Your task to perform on an android device: delete a single message in the gmail app Image 0: 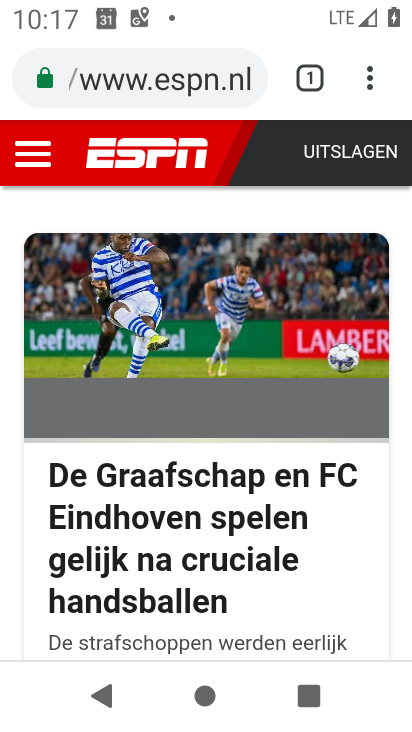
Step 0: press back button
Your task to perform on an android device: delete a single message in the gmail app Image 1: 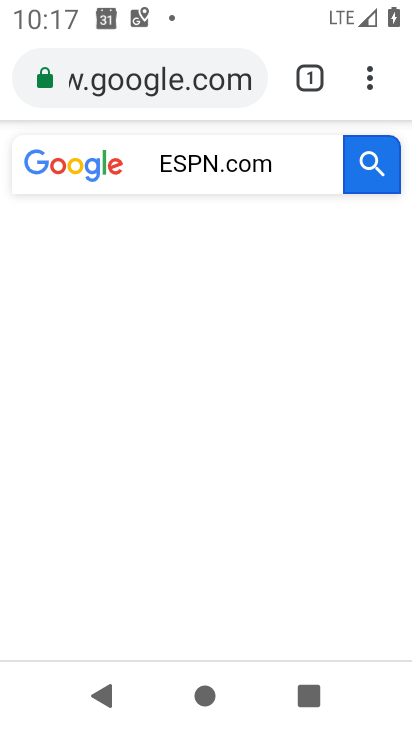
Step 1: press home button
Your task to perform on an android device: delete a single message in the gmail app Image 2: 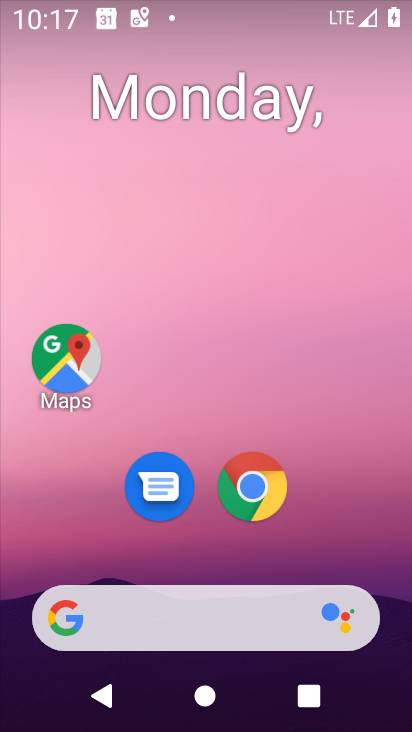
Step 2: drag from (340, 453) to (283, 33)
Your task to perform on an android device: delete a single message in the gmail app Image 3: 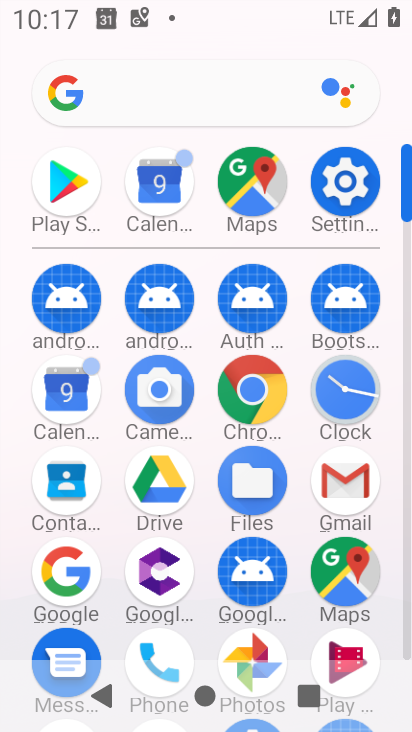
Step 3: click (344, 472)
Your task to perform on an android device: delete a single message in the gmail app Image 4: 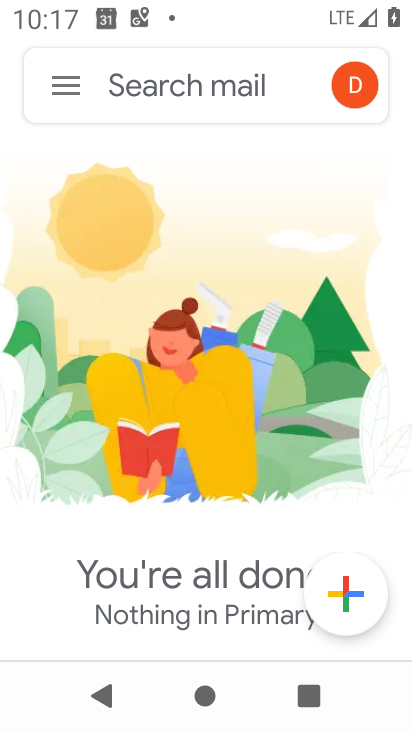
Step 4: click (62, 95)
Your task to perform on an android device: delete a single message in the gmail app Image 5: 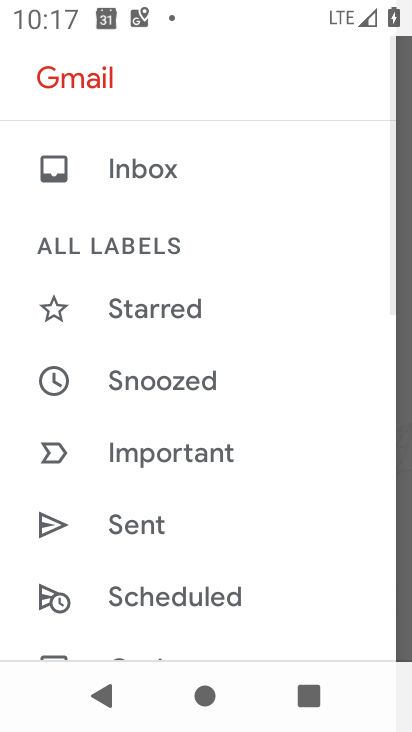
Step 5: drag from (260, 555) to (280, 116)
Your task to perform on an android device: delete a single message in the gmail app Image 6: 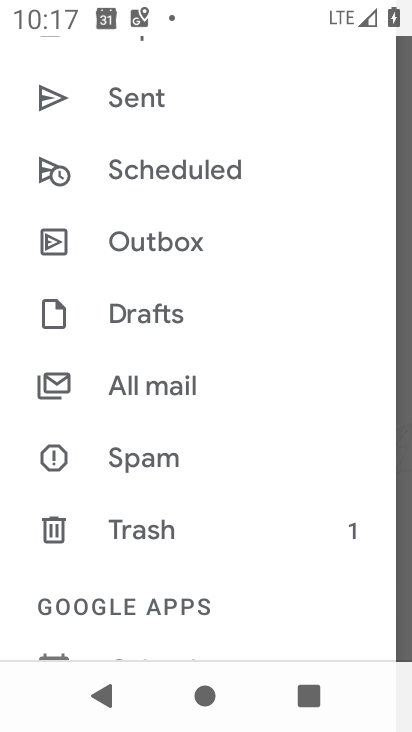
Step 6: drag from (297, 614) to (285, 123)
Your task to perform on an android device: delete a single message in the gmail app Image 7: 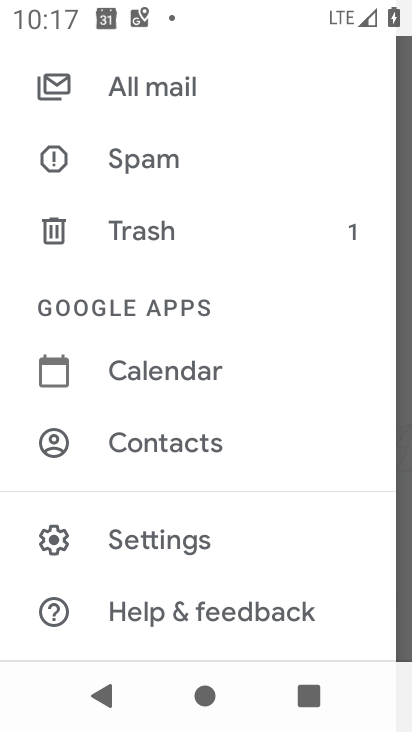
Step 7: click (200, 228)
Your task to perform on an android device: delete a single message in the gmail app Image 8: 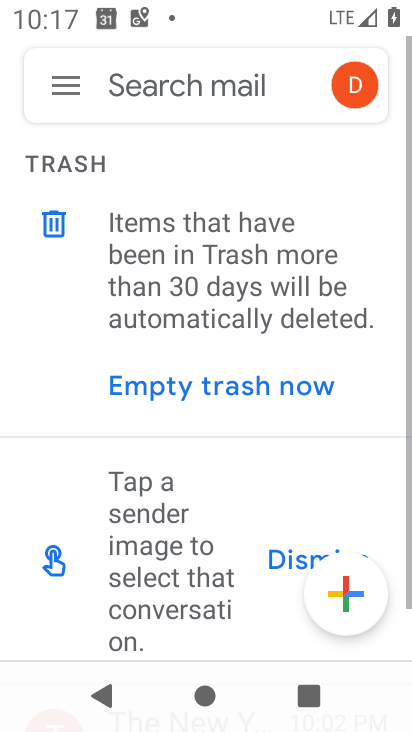
Step 8: drag from (204, 545) to (248, 158)
Your task to perform on an android device: delete a single message in the gmail app Image 9: 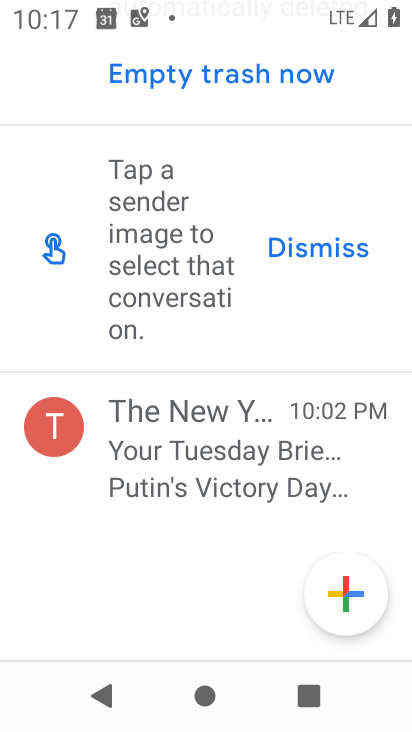
Step 9: click (160, 442)
Your task to perform on an android device: delete a single message in the gmail app Image 10: 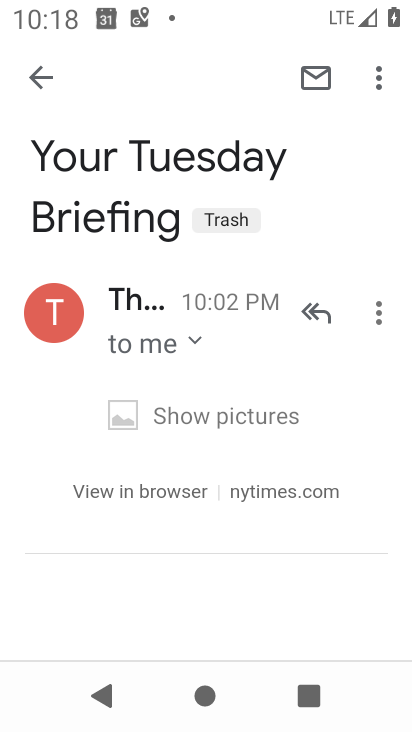
Step 10: click (362, 74)
Your task to perform on an android device: delete a single message in the gmail app Image 11: 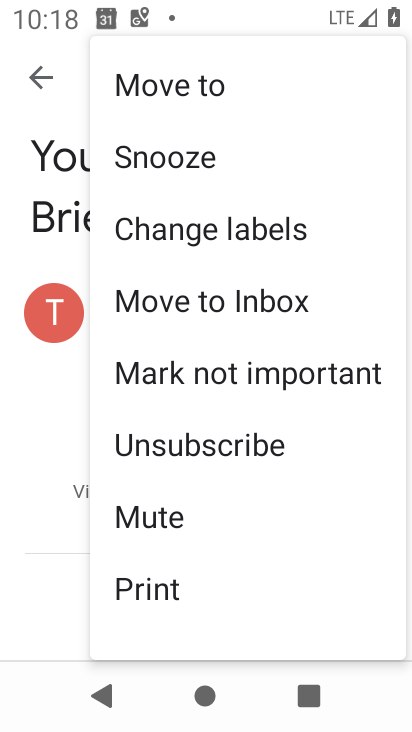
Step 11: click (38, 442)
Your task to perform on an android device: delete a single message in the gmail app Image 12: 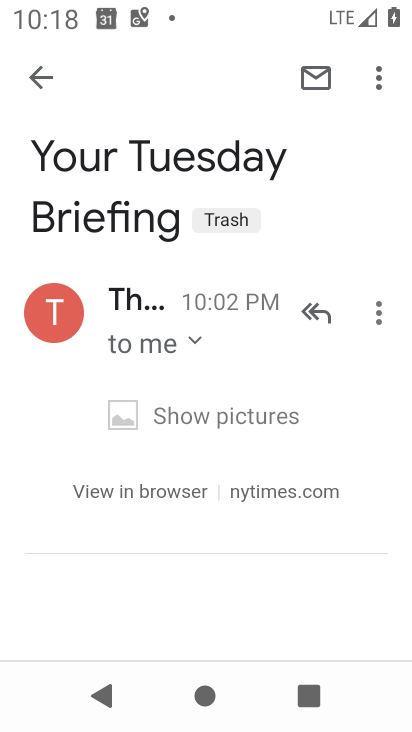
Step 12: click (382, 315)
Your task to perform on an android device: delete a single message in the gmail app Image 13: 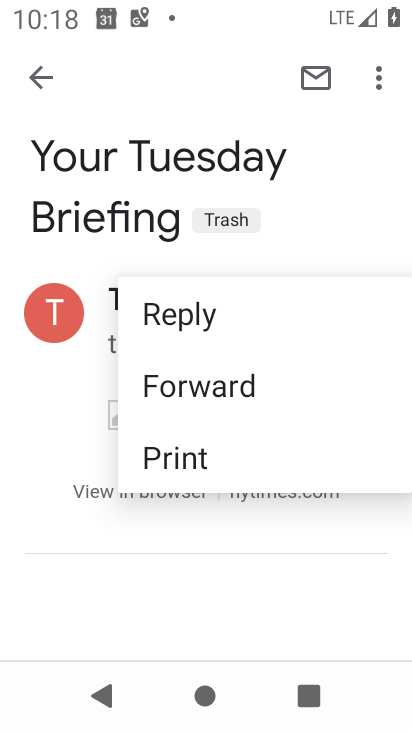
Step 13: click (16, 367)
Your task to perform on an android device: delete a single message in the gmail app Image 14: 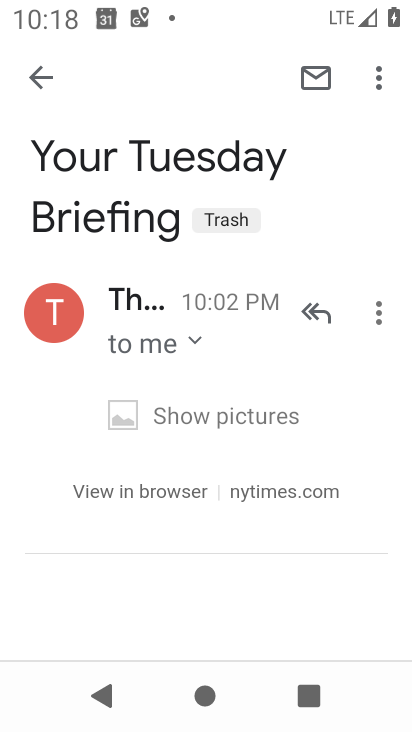
Step 14: drag from (150, 497) to (200, 168)
Your task to perform on an android device: delete a single message in the gmail app Image 15: 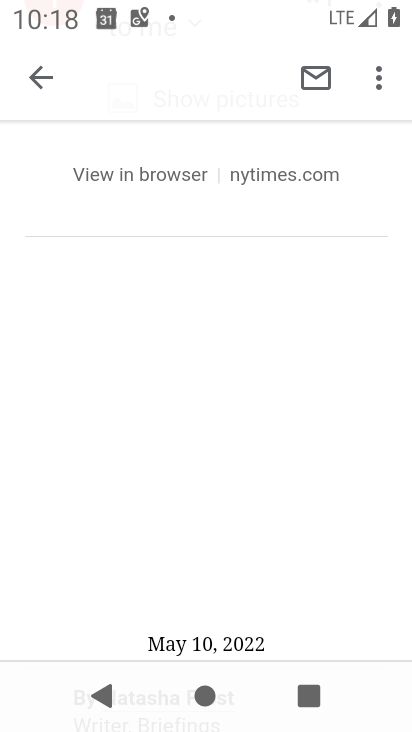
Step 15: drag from (198, 303) to (211, 565)
Your task to perform on an android device: delete a single message in the gmail app Image 16: 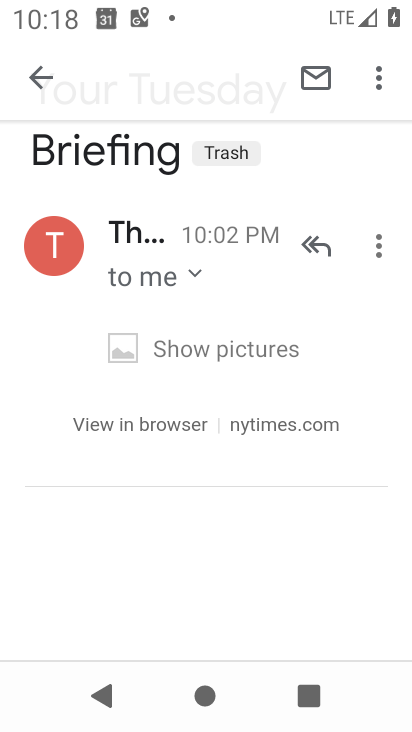
Step 16: click (314, 79)
Your task to perform on an android device: delete a single message in the gmail app Image 17: 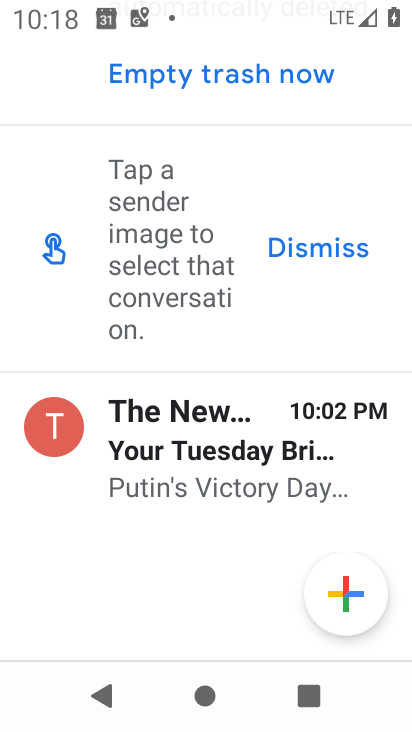
Step 17: click (222, 431)
Your task to perform on an android device: delete a single message in the gmail app Image 18: 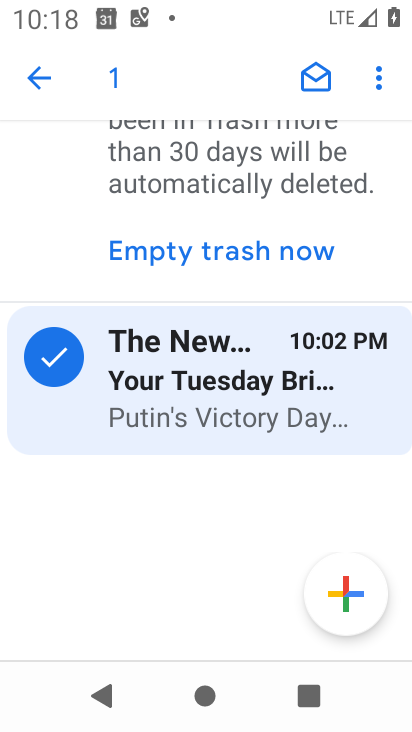
Step 18: click (377, 84)
Your task to perform on an android device: delete a single message in the gmail app Image 19: 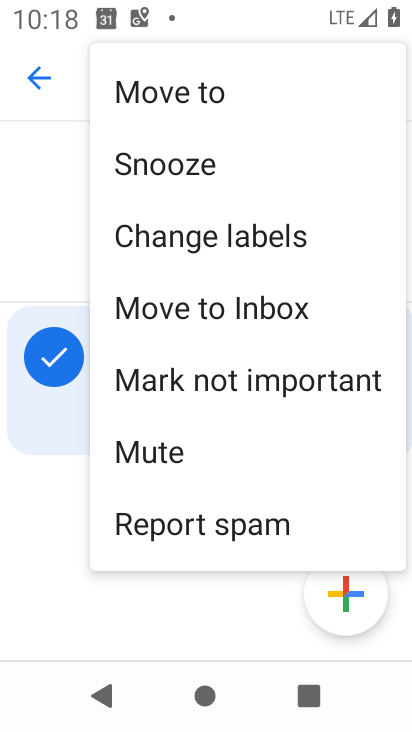
Step 19: click (32, 528)
Your task to perform on an android device: delete a single message in the gmail app Image 20: 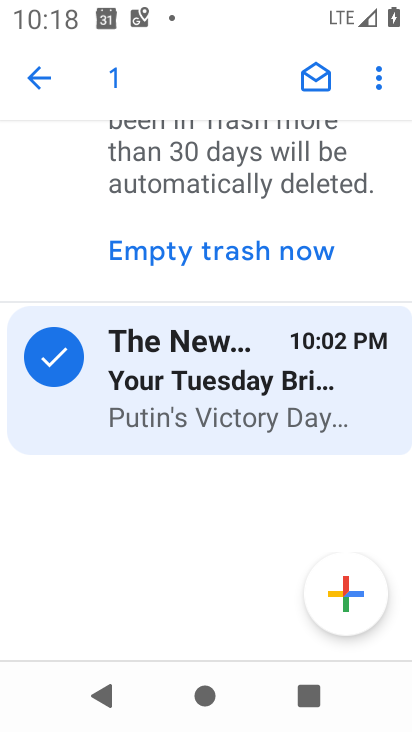
Step 20: click (39, 511)
Your task to perform on an android device: delete a single message in the gmail app Image 21: 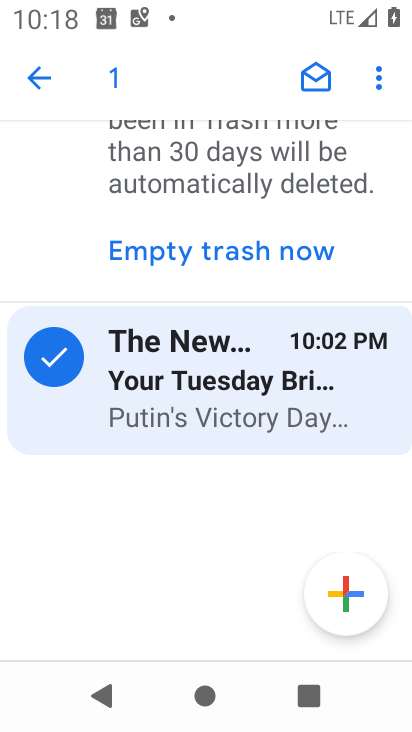
Step 21: click (320, 76)
Your task to perform on an android device: delete a single message in the gmail app Image 22: 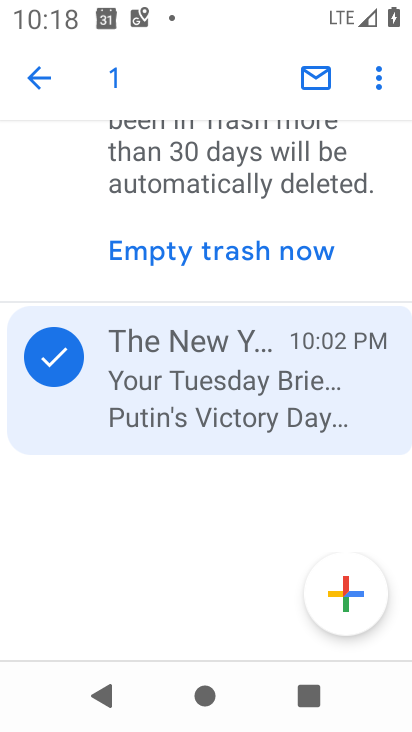
Step 22: click (46, 91)
Your task to perform on an android device: delete a single message in the gmail app Image 23: 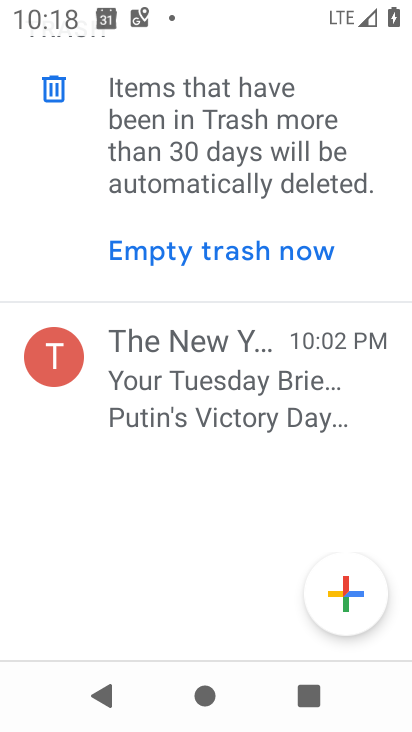
Step 23: click (59, 81)
Your task to perform on an android device: delete a single message in the gmail app Image 24: 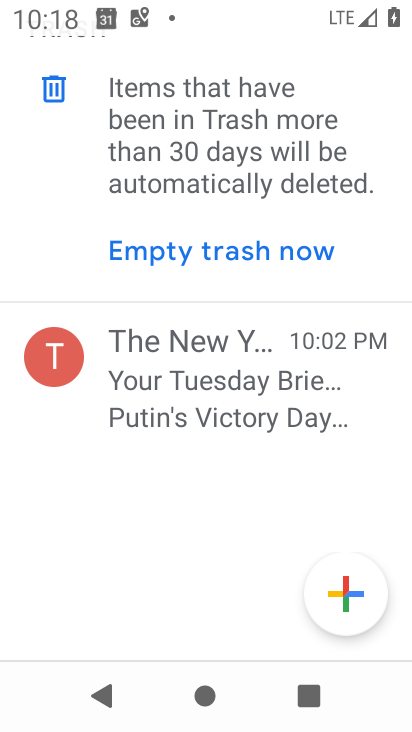
Step 24: click (205, 379)
Your task to perform on an android device: delete a single message in the gmail app Image 25: 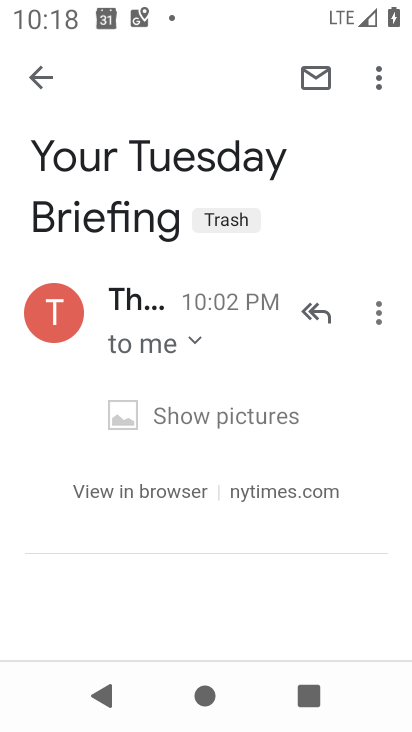
Step 25: click (214, 220)
Your task to perform on an android device: delete a single message in the gmail app Image 26: 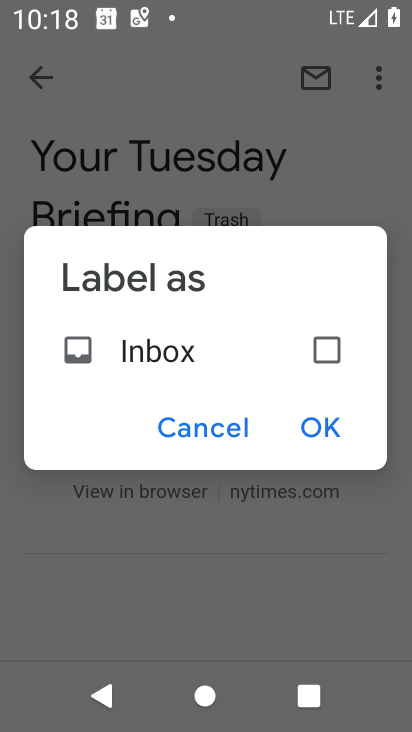
Step 26: click (328, 346)
Your task to perform on an android device: delete a single message in the gmail app Image 27: 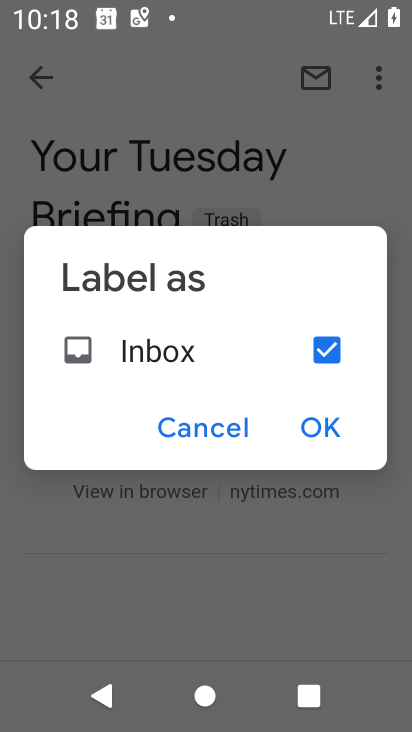
Step 27: click (332, 423)
Your task to perform on an android device: delete a single message in the gmail app Image 28: 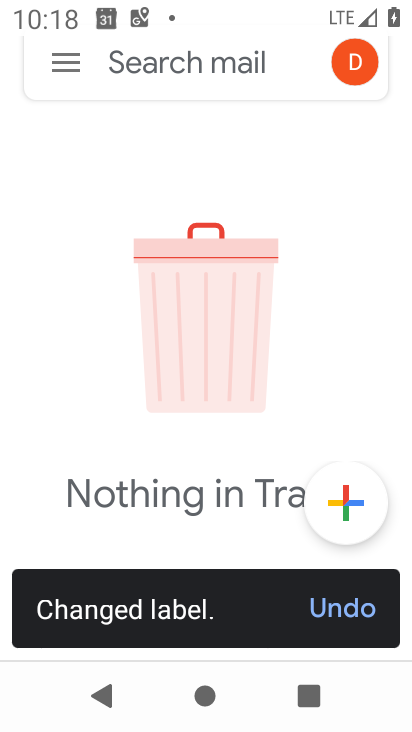
Step 28: click (54, 65)
Your task to perform on an android device: delete a single message in the gmail app Image 29: 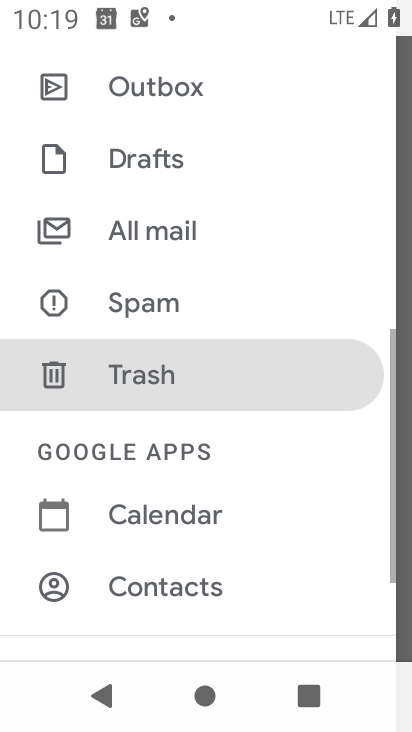
Step 29: drag from (242, 137) to (270, 564)
Your task to perform on an android device: delete a single message in the gmail app Image 30: 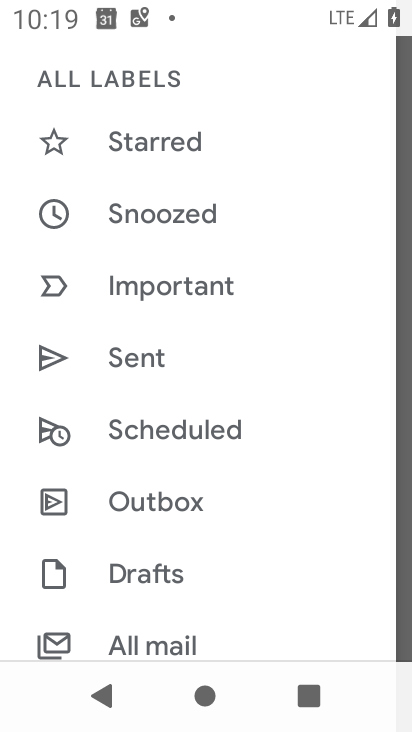
Step 30: drag from (213, 131) to (253, 546)
Your task to perform on an android device: delete a single message in the gmail app Image 31: 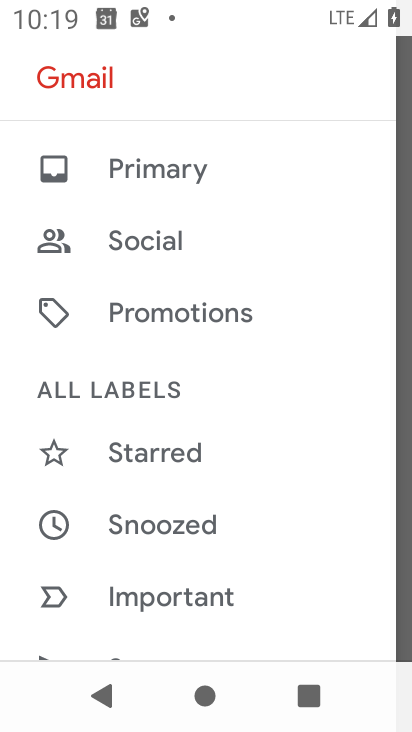
Step 31: click (218, 154)
Your task to perform on an android device: delete a single message in the gmail app Image 32: 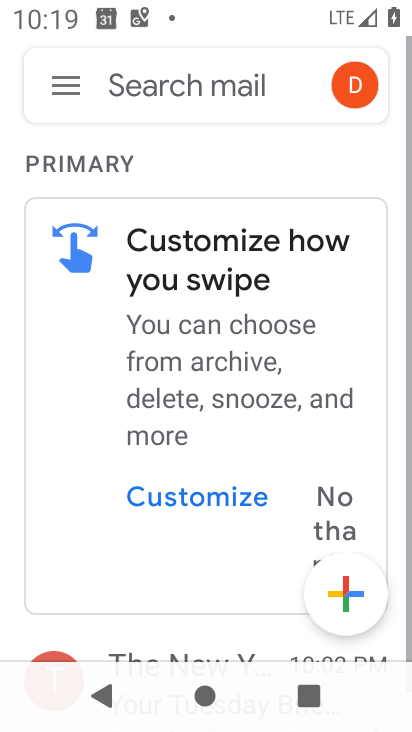
Step 32: drag from (205, 559) to (214, 141)
Your task to perform on an android device: delete a single message in the gmail app Image 33: 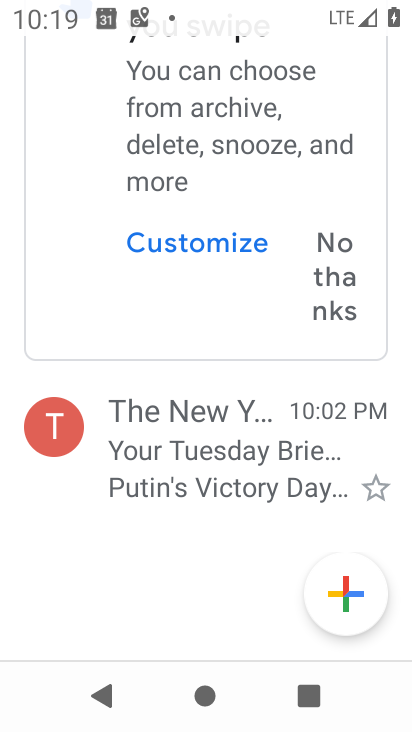
Step 33: click (231, 451)
Your task to perform on an android device: delete a single message in the gmail app Image 34: 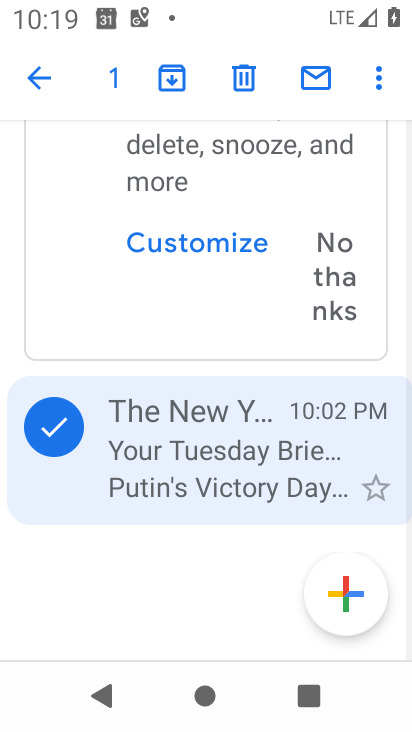
Step 34: click (236, 85)
Your task to perform on an android device: delete a single message in the gmail app Image 35: 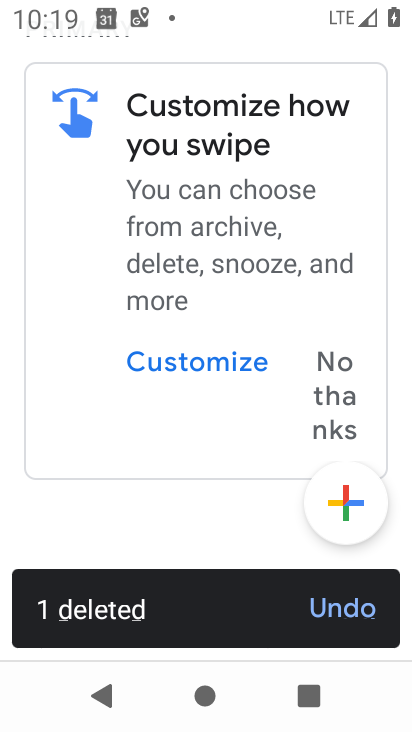
Step 35: task complete